Your task to perform on an android device: Go to ESPN.com Image 0: 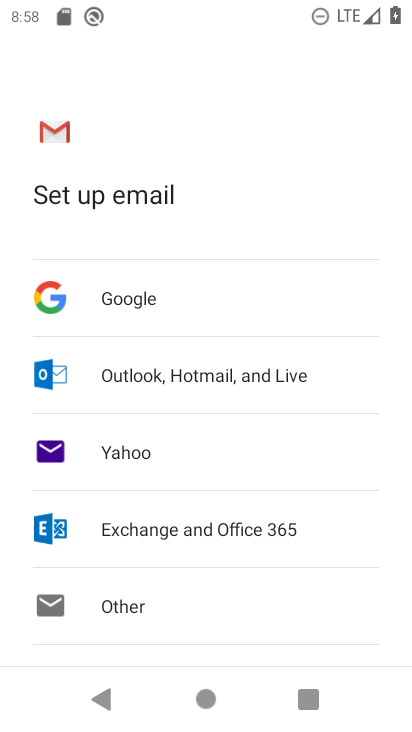
Step 0: press home button
Your task to perform on an android device: Go to ESPN.com Image 1: 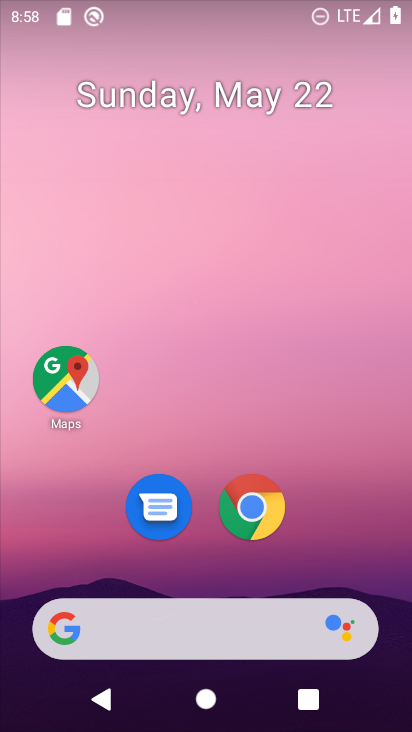
Step 1: click (257, 627)
Your task to perform on an android device: Go to ESPN.com Image 2: 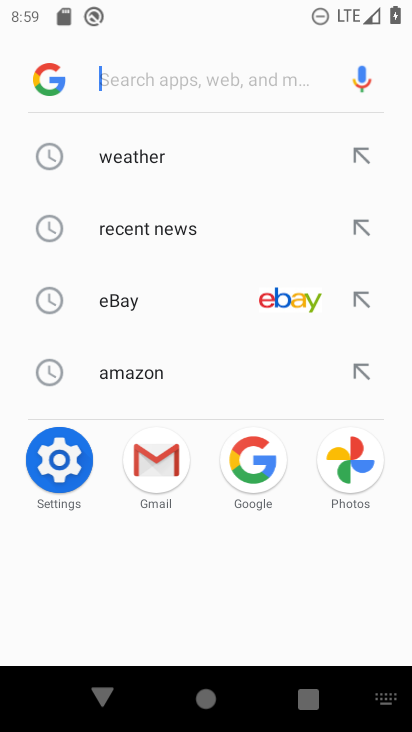
Step 2: type "espn.com"
Your task to perform on an android device: Go to ESPN.com Image 3: 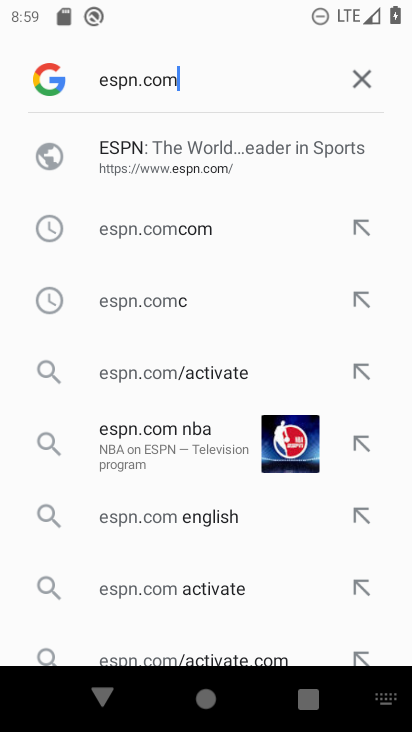
Step 3: click (257, 156)
Your task to perform on an android device: Go to ESPN.com Image 4: 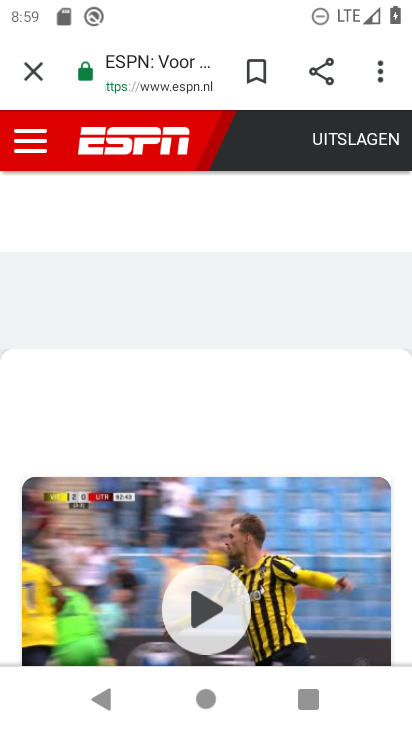
Step 4: task complete